Your task to perform on an android device: find photos in the google photos app Image 0: 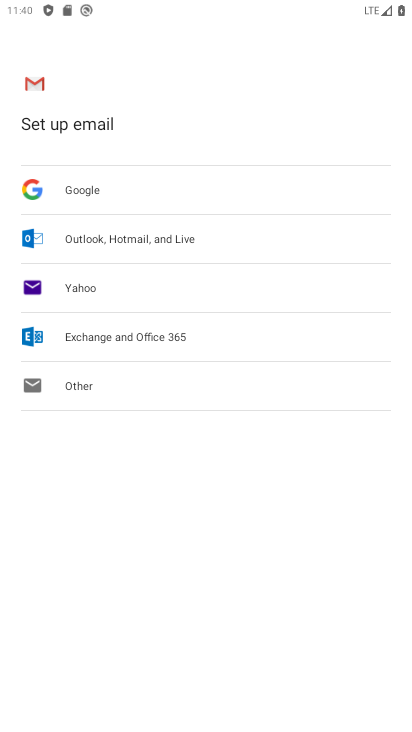
Step 0: press home button
Your task to perform on an android device: find photos in the google photos app Image 1: 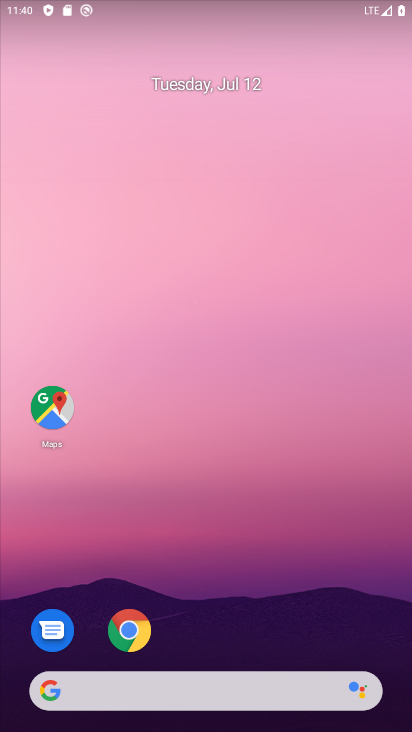
Step 1: drag from (361, 659) to (241, 134)
Your task to perform on an android device: find photos in the google photos app Image 2: 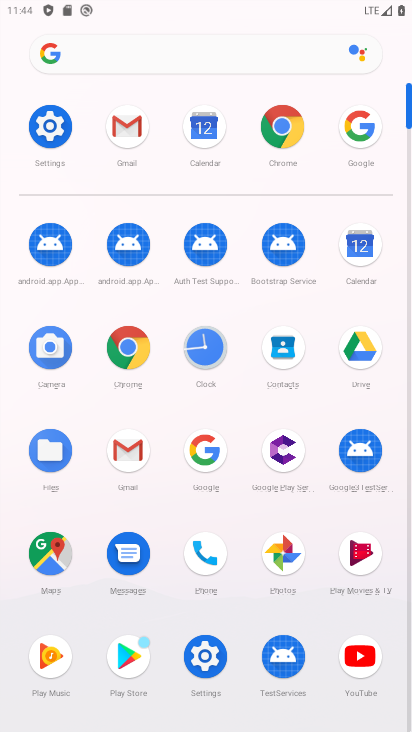
Step 2: click (281, 555)
Your task to perform on an android device: find photos in the google photos app Image 3: 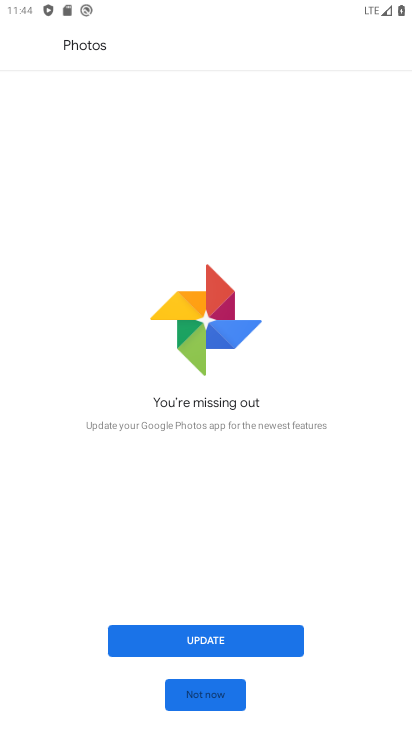
Step 3: task complete